Your task to perform on an android device: toggle translation in the chrome app Image 0: 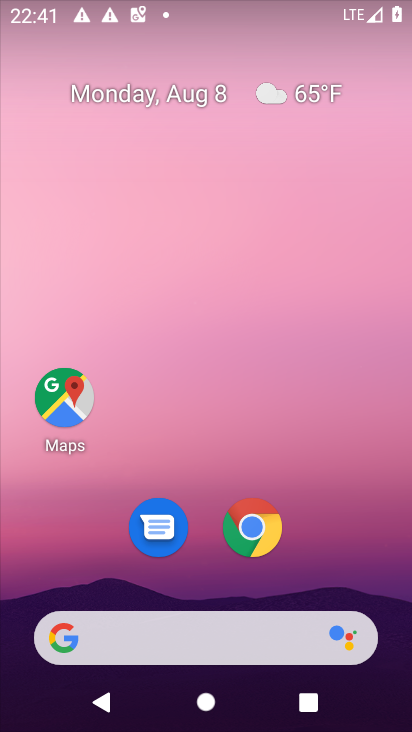
Step 0: click (247, 525)
Your task to perform on an android device: toggle translation in the chrome app Image 1: 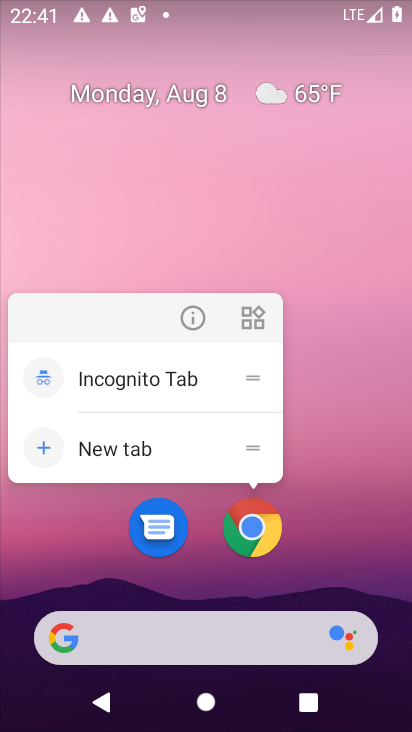
Step 1: click (247, 525)
Your task to perform on an android device: toggle translation in the chrome app Image 2: 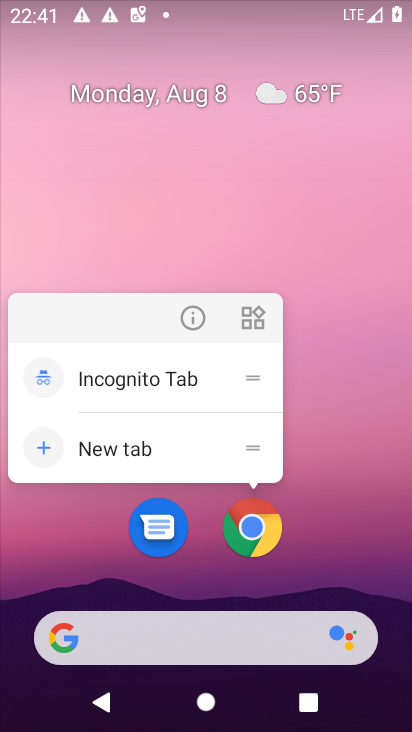
Step 2: click (247, 525)
Your task to perform on an android device: toggle translation in the chrome app Image 3: 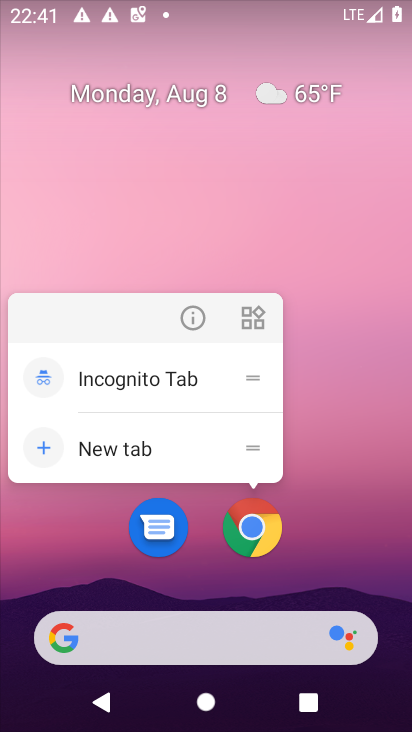
Step 3: click (247, 525)
Your task to perform on an android device: toggle translation in the chrome app Image 4: 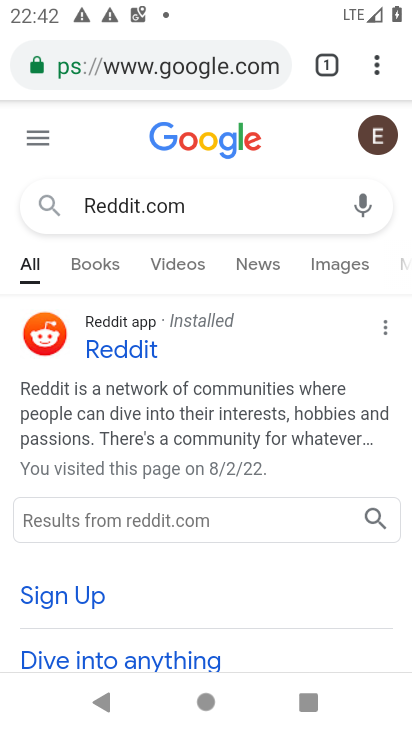
Step 4: click (370, 52)
Your task to perform on an android device: toggle translation in the chrome app Image 5: 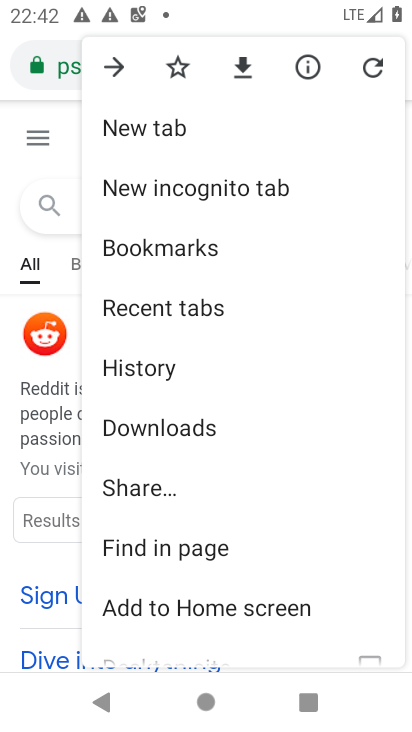
Step 5: drag from (318, 623) to (321, 187)
Your task to perform on an android device: toggle translation in the chrome app Image 6: 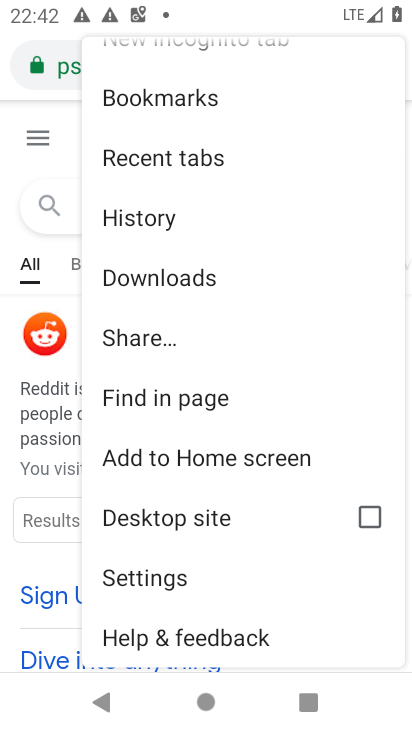
Step 6: click (161, 575)
Your task to perform on an android device: toggle translation in the chrome app Image 7: 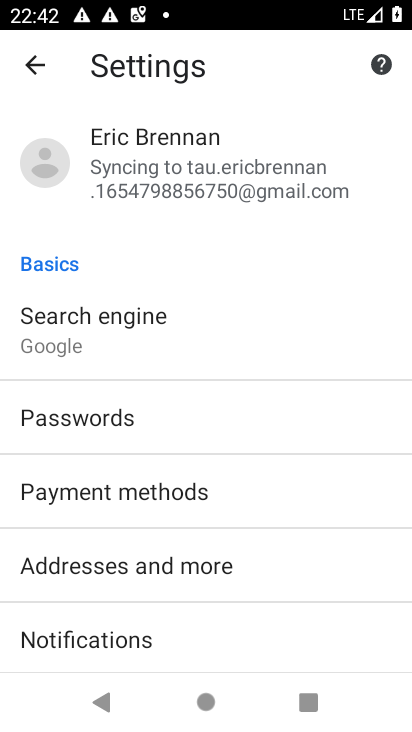
Step 7: drag from (279, 649) to (275, 195)
Your task to perform on an android device: toggle translation in the chrome app Image 8: 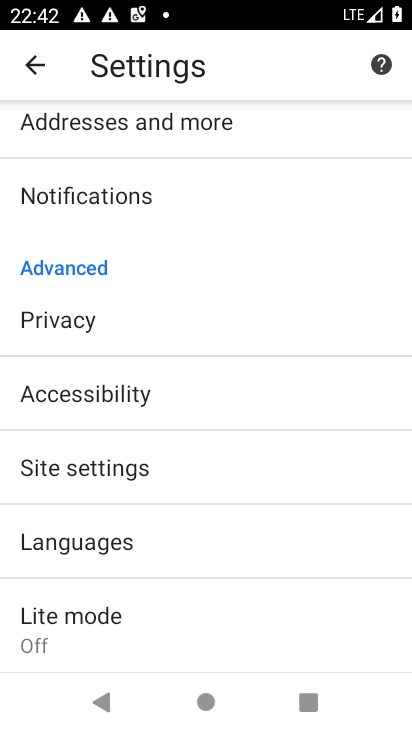
Step 8: drag from (198, 634) to (214, 347)
Your task to perform on an android device: toggle translation in the chrome app Image 9: 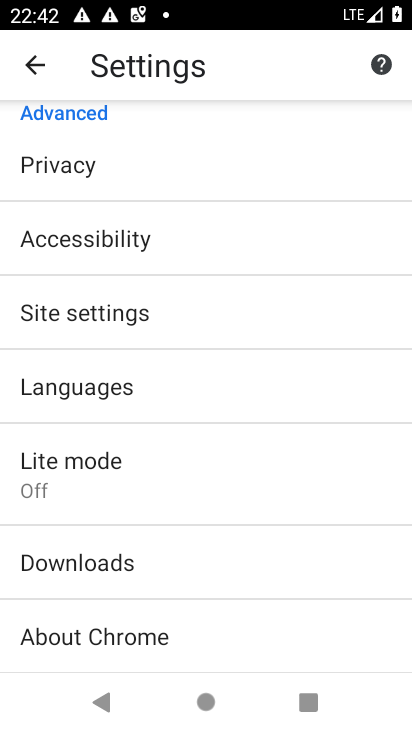
Step 9: click (88, 382)
Your task to perform on an android device: toggle translation in the chrome app Image 10: 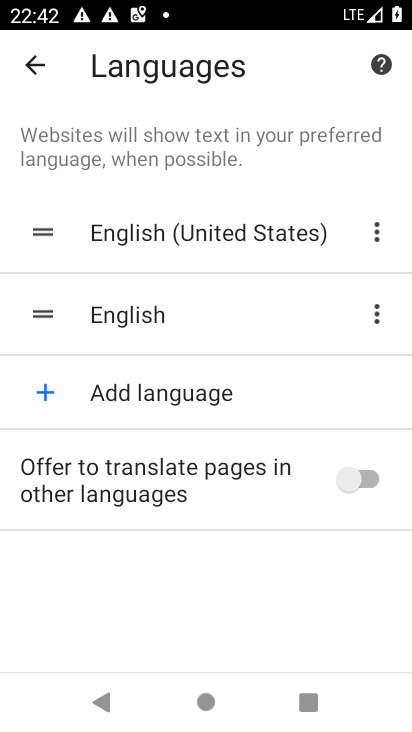
Step 10: click (366, 475)
Your task to perform on an android device: toggle translation in the chrome app Image 11: 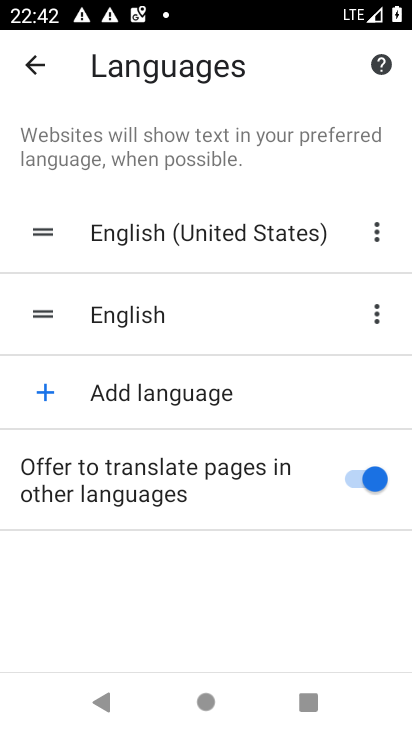
Step 11: task complete